Your task to perform on an android device: remove spam from my inbox in the gmail app Image 0: 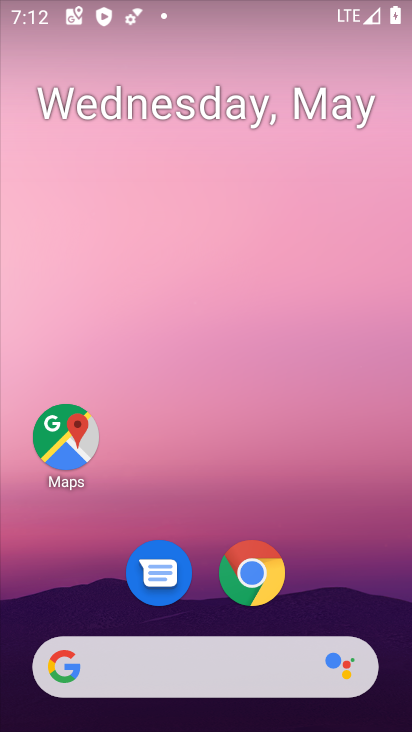
Step 0: drag from (306, 605) to (350, 228)
Your task to perform on an android device: remove spam from my inbox in the gmail app Image 1: 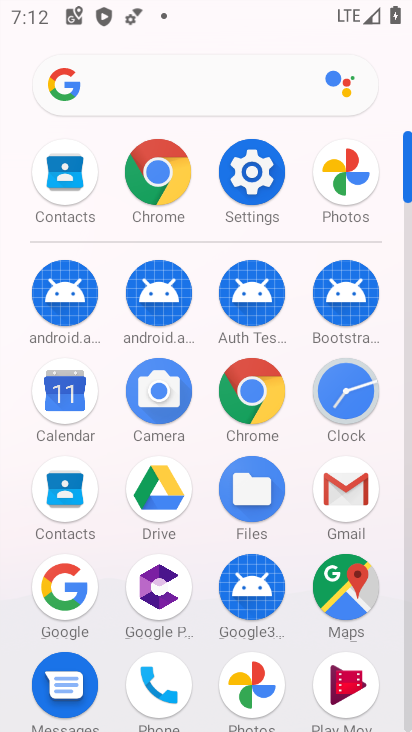
Step 1: click (343, 499)
Your task to perform on an android device: remove spam from my inbox in the gmail app Image 2: 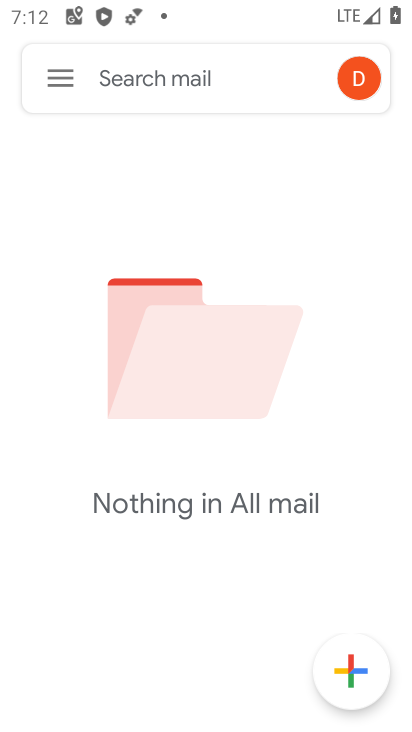
Step 2: click (46, 69)
Your task to perform on an android device: remove spam from my inbox in the gmail app Image 3: 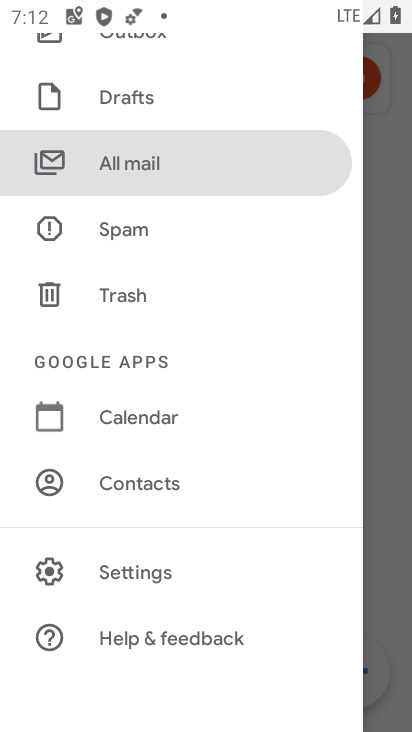
Step 3: click (135, 227)
Your task to perform on an android device: remove spam from my inbox in the gmail app Image 4: 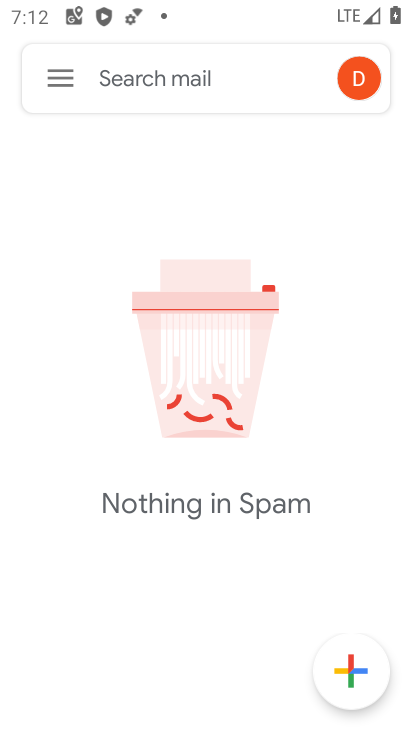
Step 4: task complete